Your task to perform on an android device: Clear the shopping cart on walmart.com. Add bose soundsport free to the cart on walmart.com Image 0: 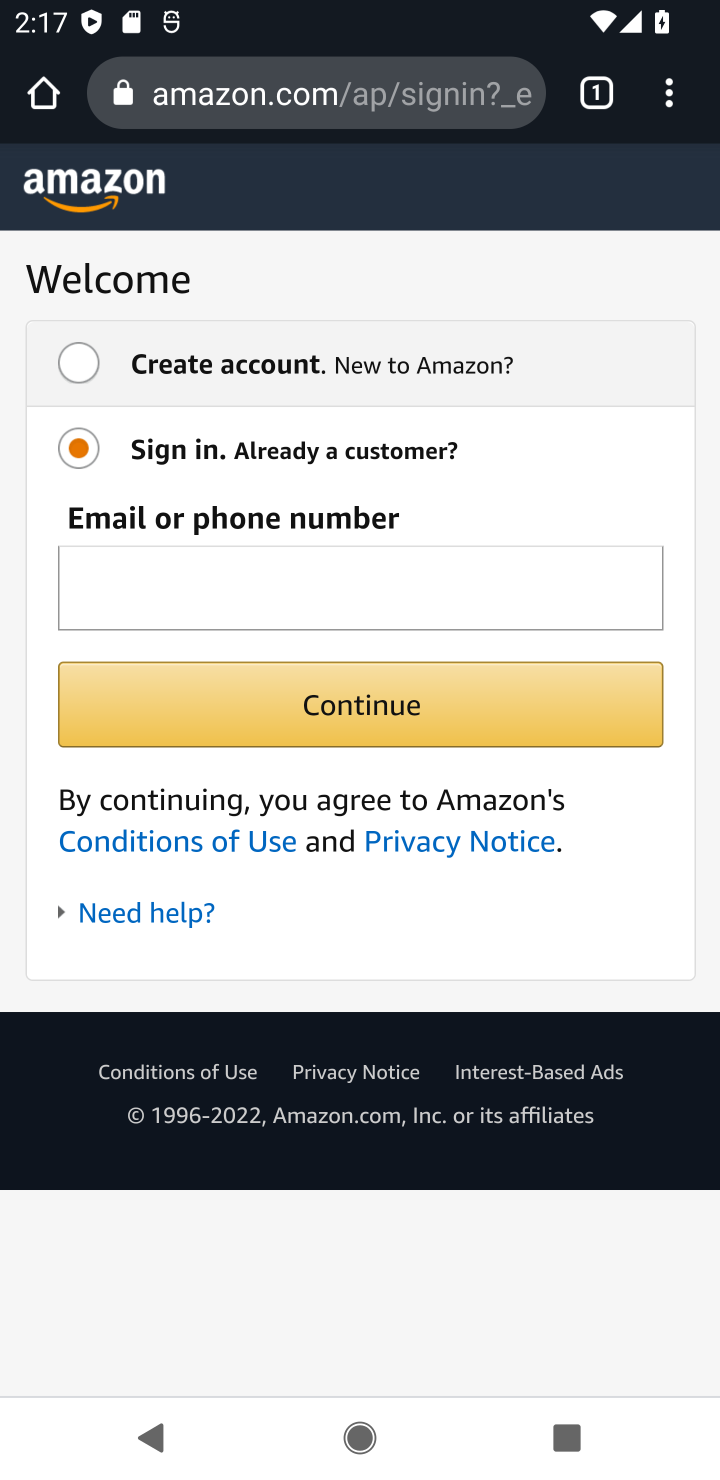
Step 0: click (657, 605)
Your task to perform on an android device: Clear the shopping cart on walmart.com. Add bose soundsport free to the cart on walmart.com Image 1: 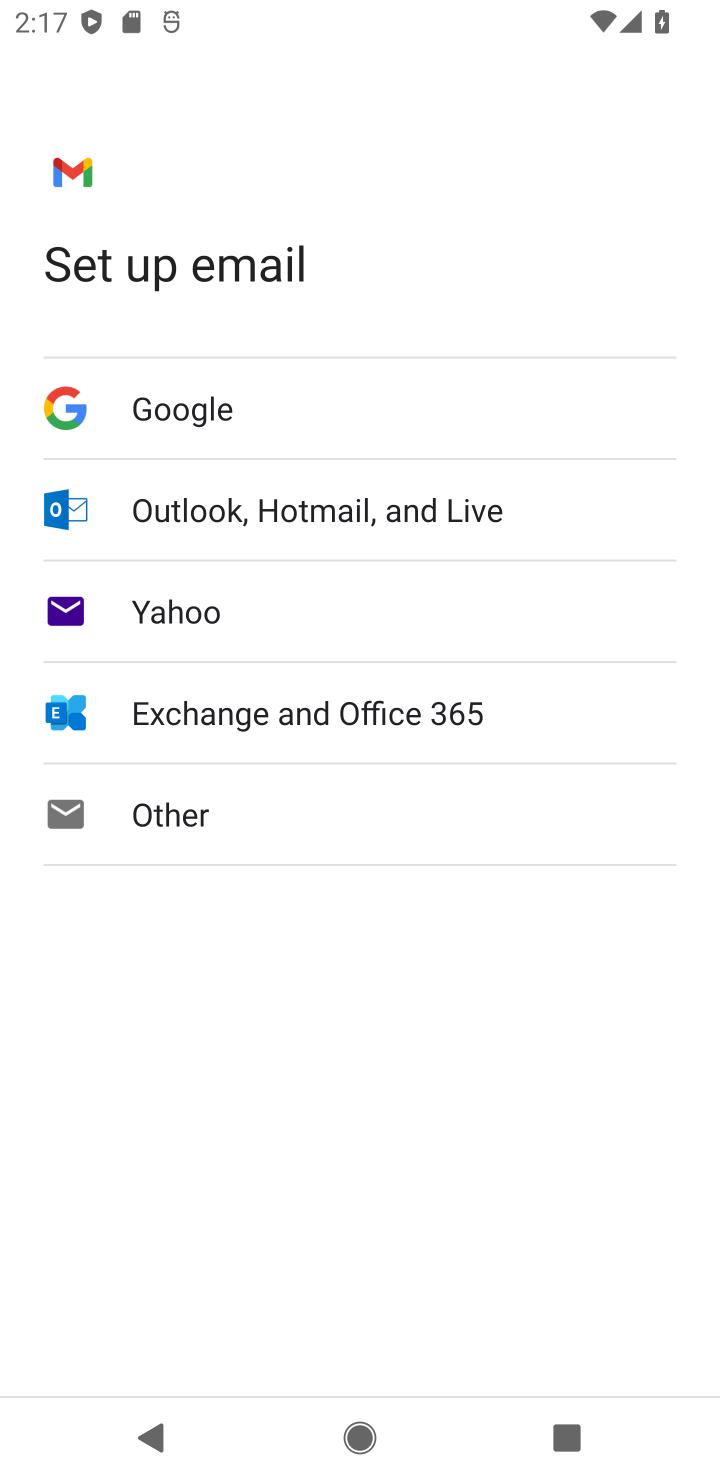
Step 1: press home button
Your task to perform on an android device: Clear the shopping cart on walmart.com. Add bose soundsport free to the cart on walmart.com Image 2: 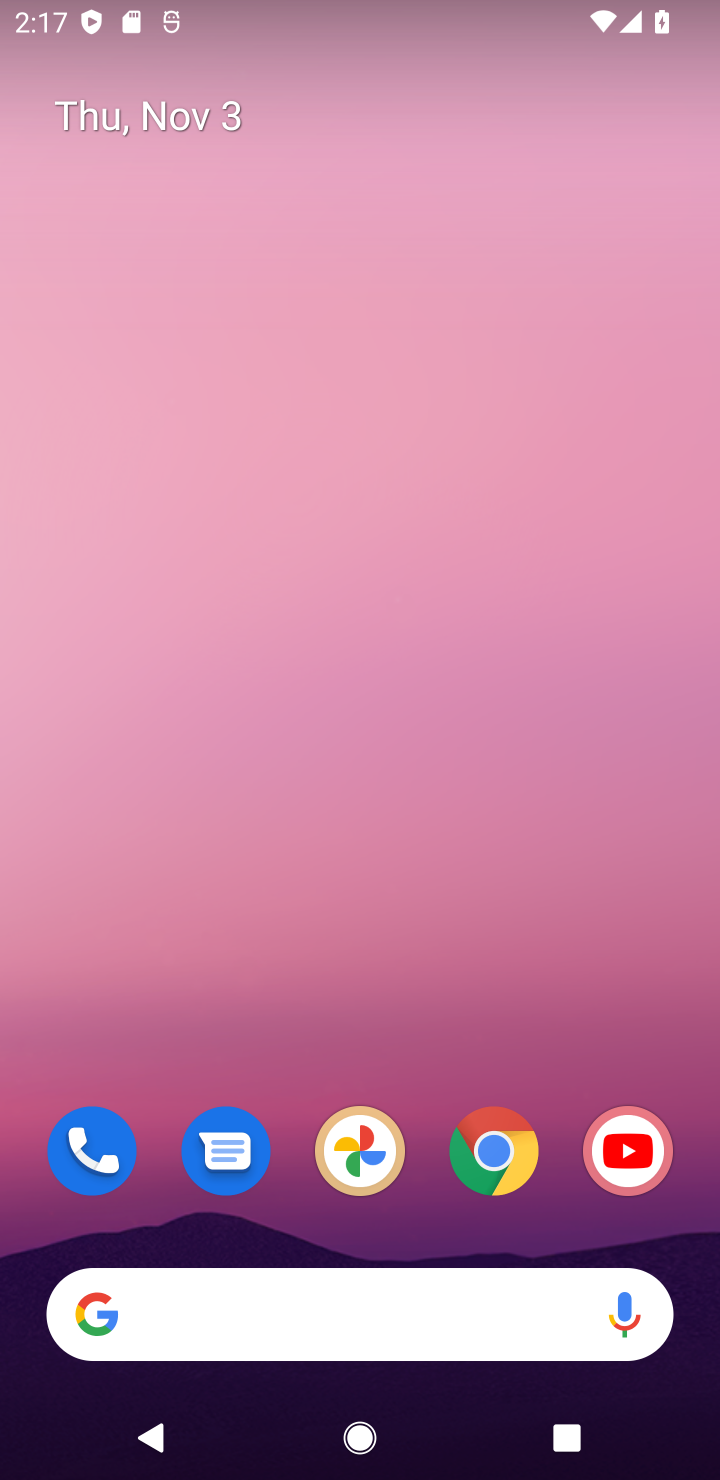
Step 2: click (496, 1149)
Your task to perform on an android device: Clear the shopping cart on walmart.com. Add bose soundsport free to the cart on walmart.com Image 3: 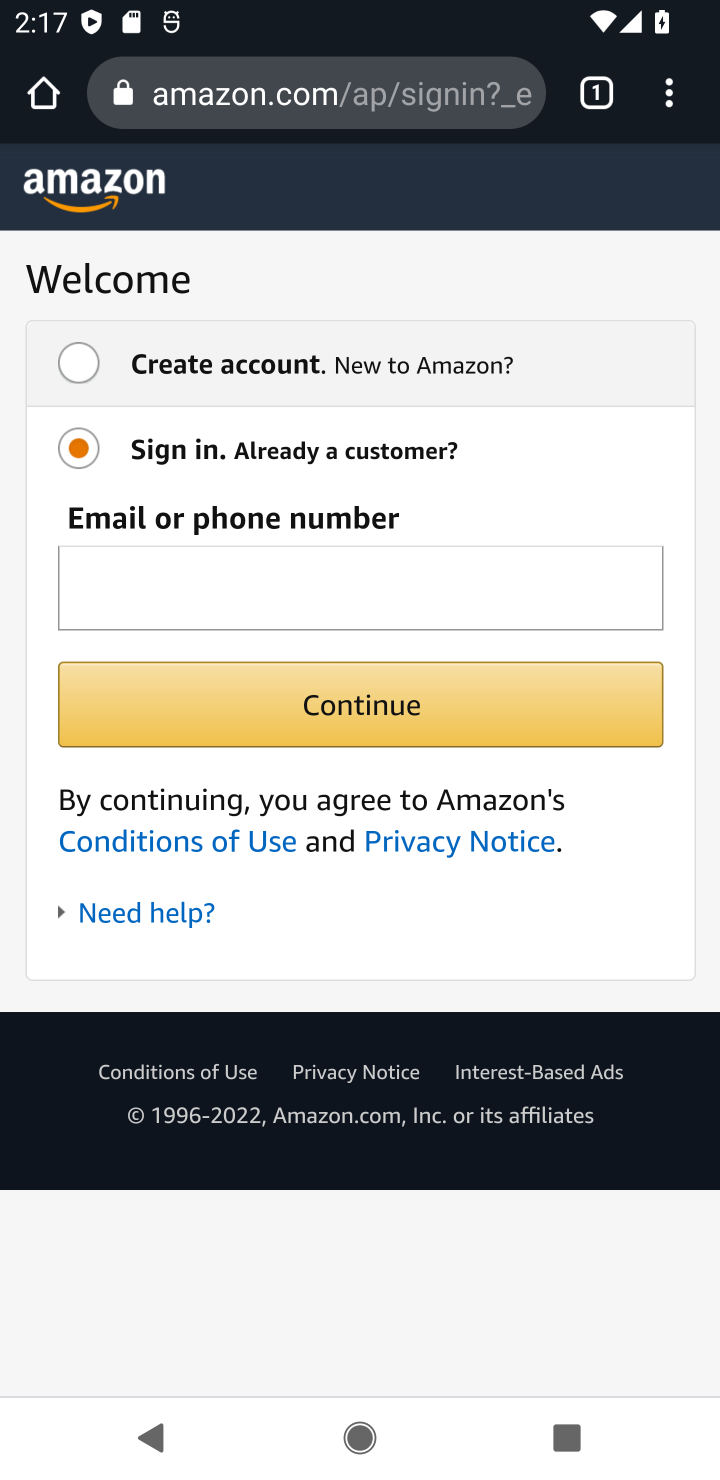
Step 3: click (375, 94)
Your task to perform on an android device: Clear the shopping cart on walmart.com. Add bose soundsport free to the cart on walmart.com Image 4: 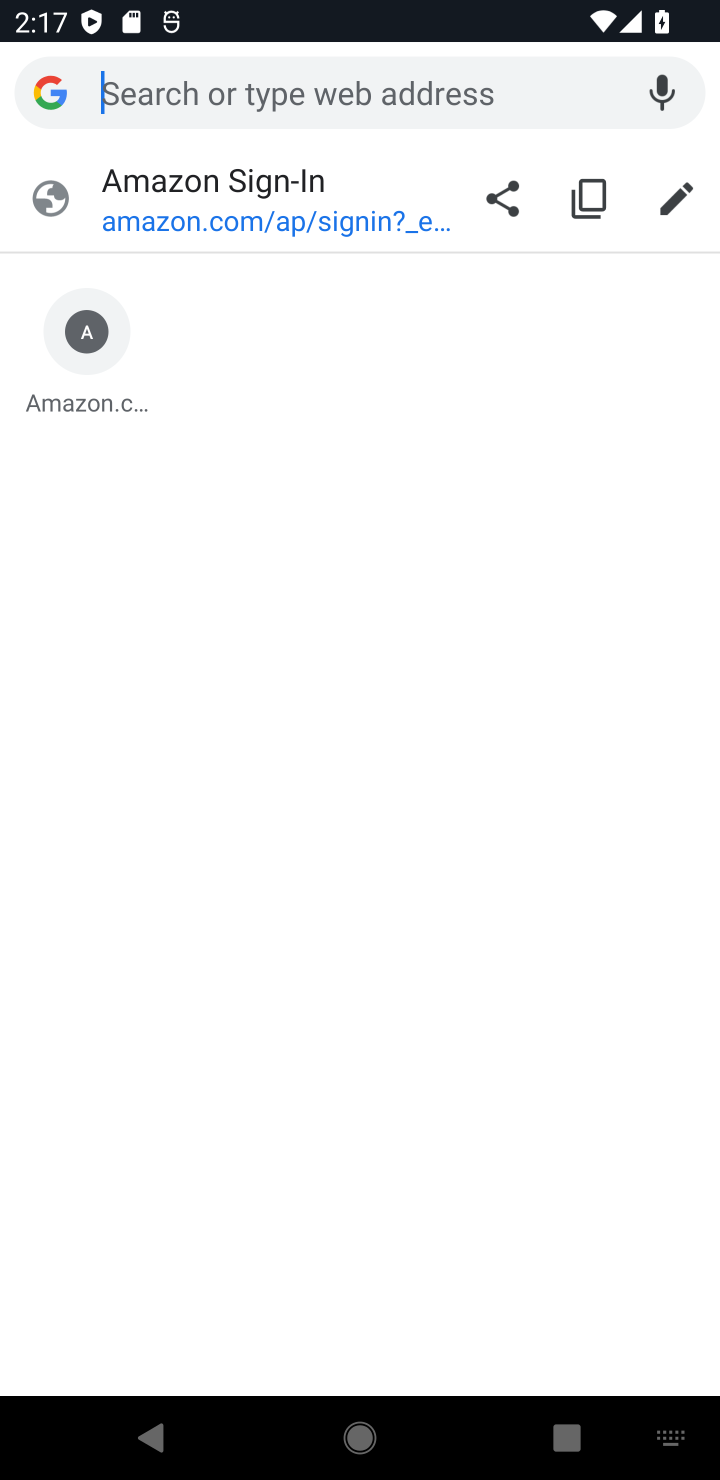
Step 4: type "walmart.com"
Your task to perform on an android device: Clear the shopping cart on walmart.com. Add bose soundsport free to the cart on walmart.com Image 5: 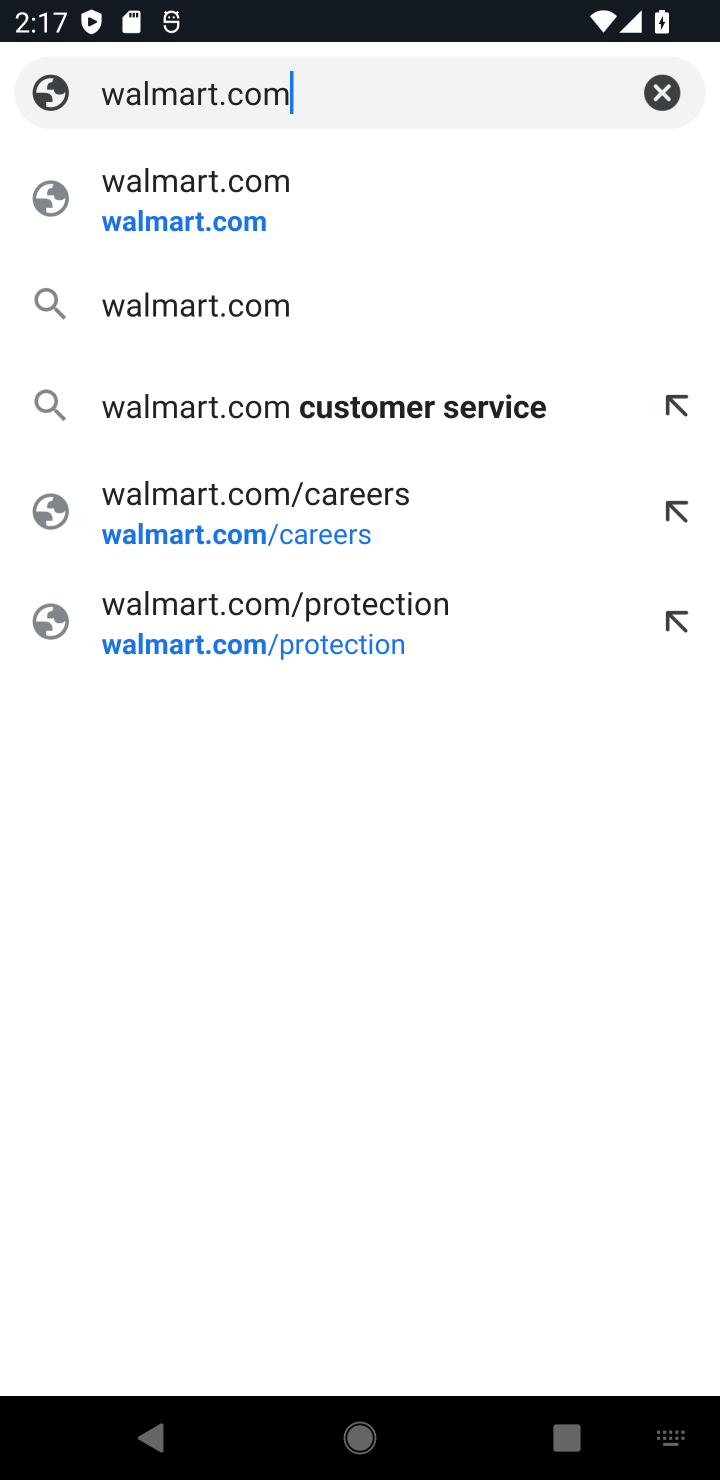
Step 5: click (146, 233)
Your task to perform on an android device: Clear the shopping cart on walmart.com. Add bose soundsport free to the cart on walmart.com Image 6: 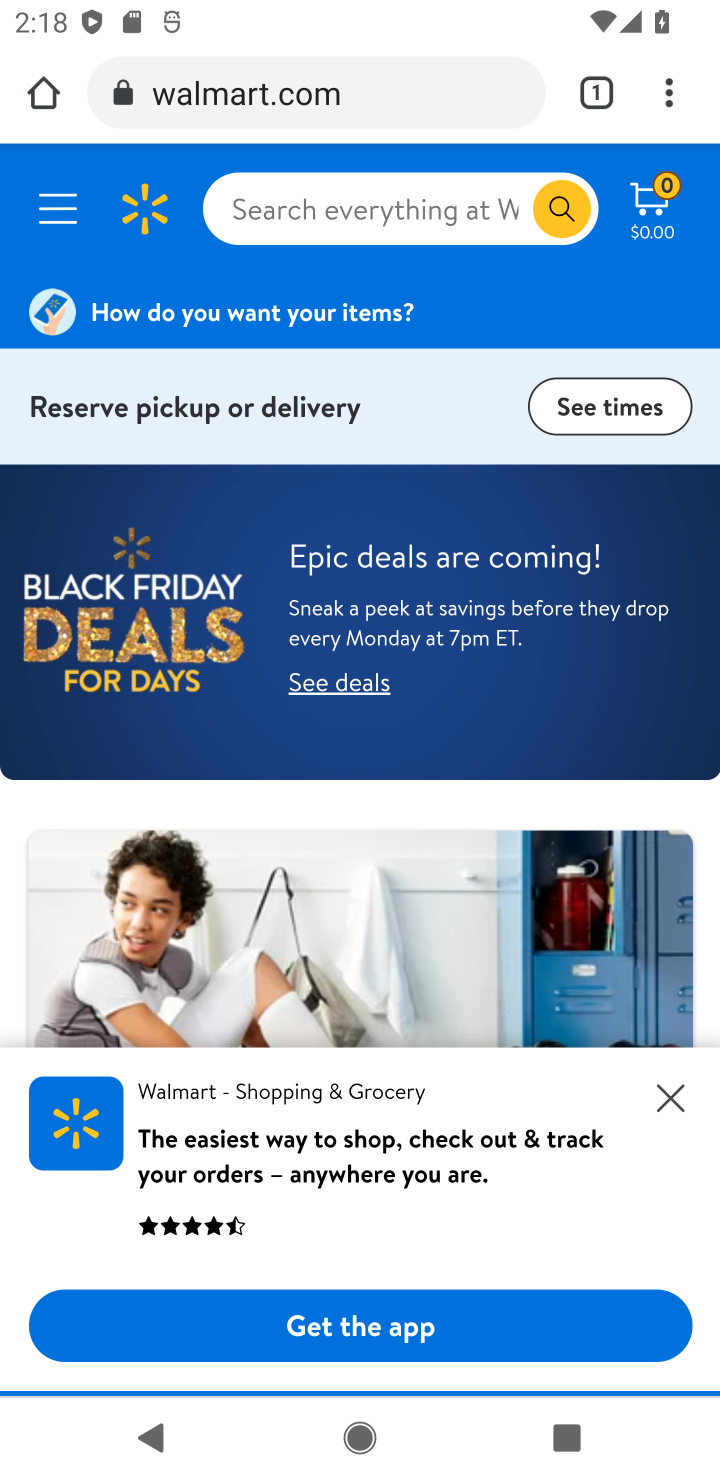
Step 6: click (650, 207)
Your task to perform on an android device: Clear the shopping cart on walmart.com. Add bose soundsport free to the cart on walmart.com Image 7: 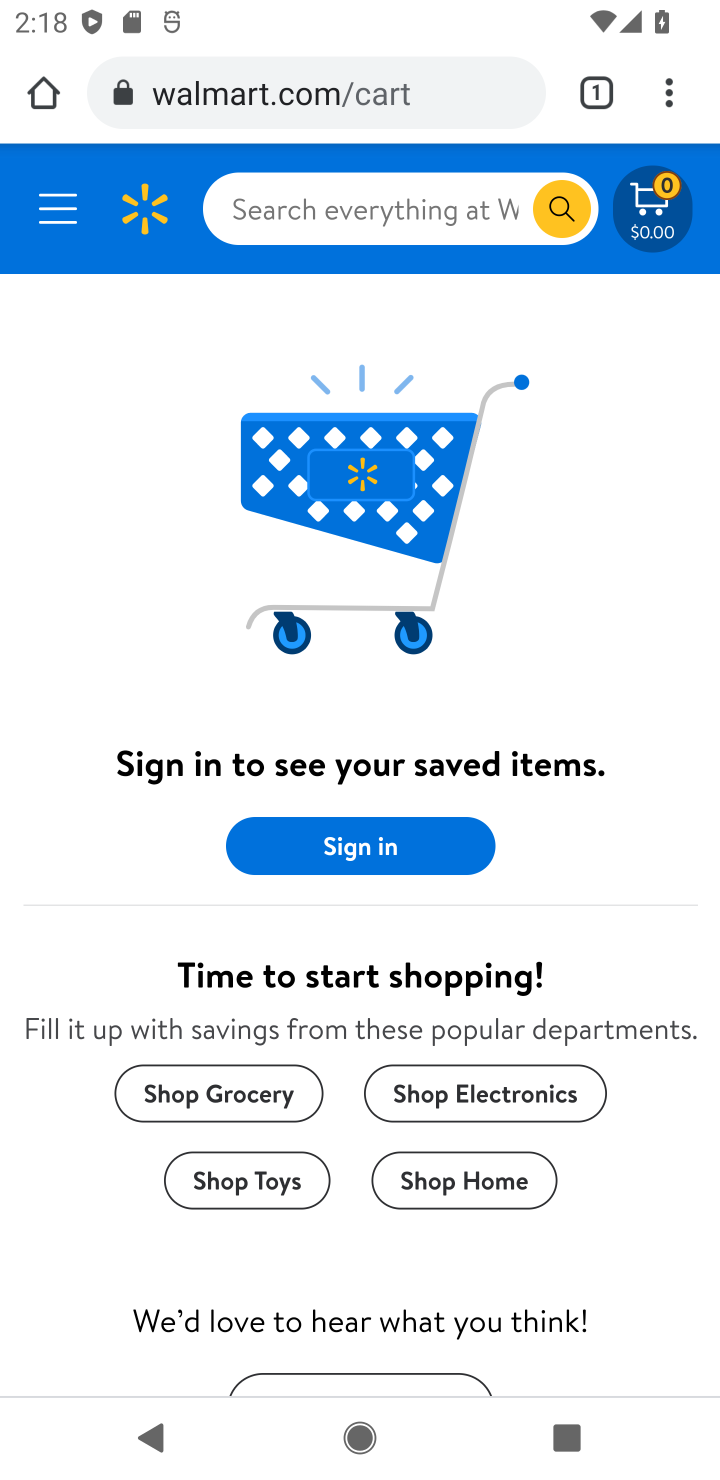
Step 7: click (329, 212)
Your task to perform on an android device: Clear the shopping cart on walmart.com. Add bose soundsport free to the cart on walmart.com Image 8: 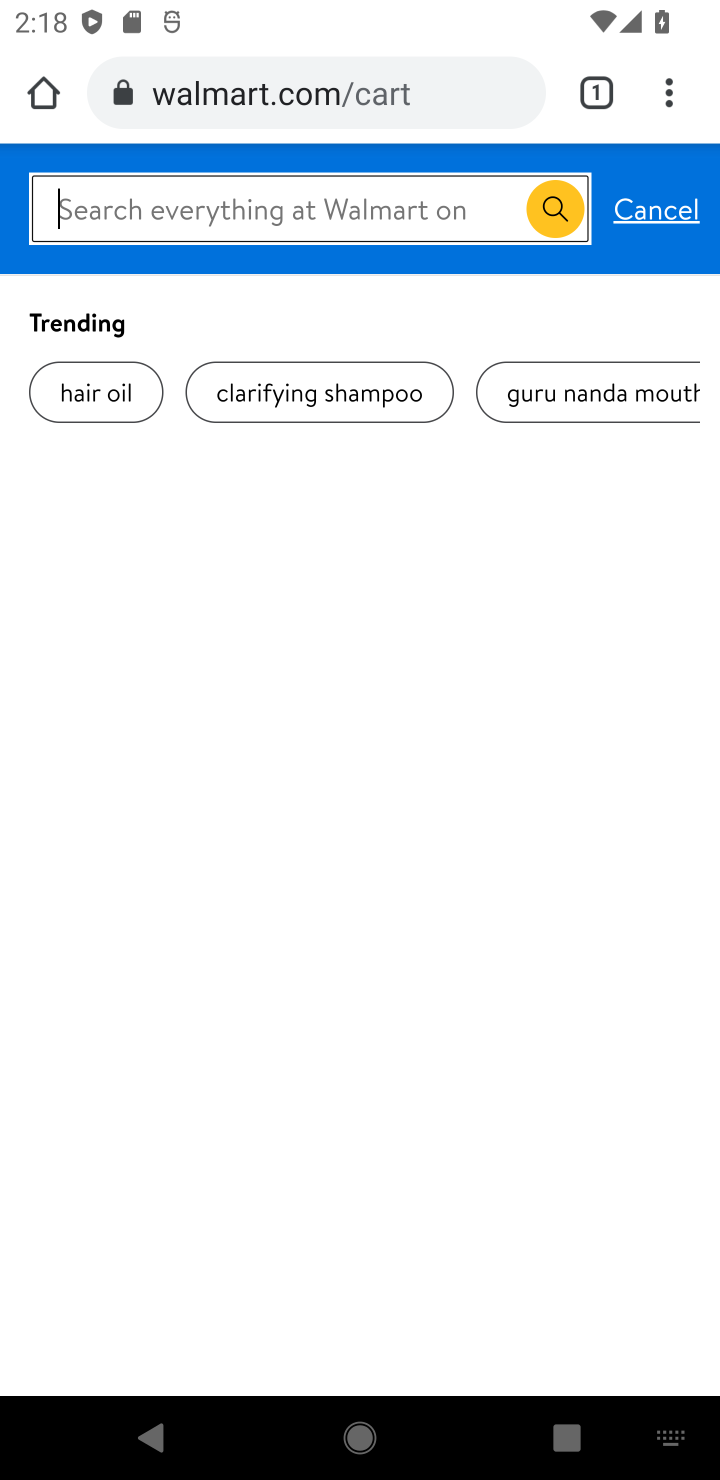
Step 8: type "Bose soundsport free"
Your task to perform on an android device: Clear the shopping cart on walmart.com. Add bose soundsport free to the cart on walmart.com Image 9: 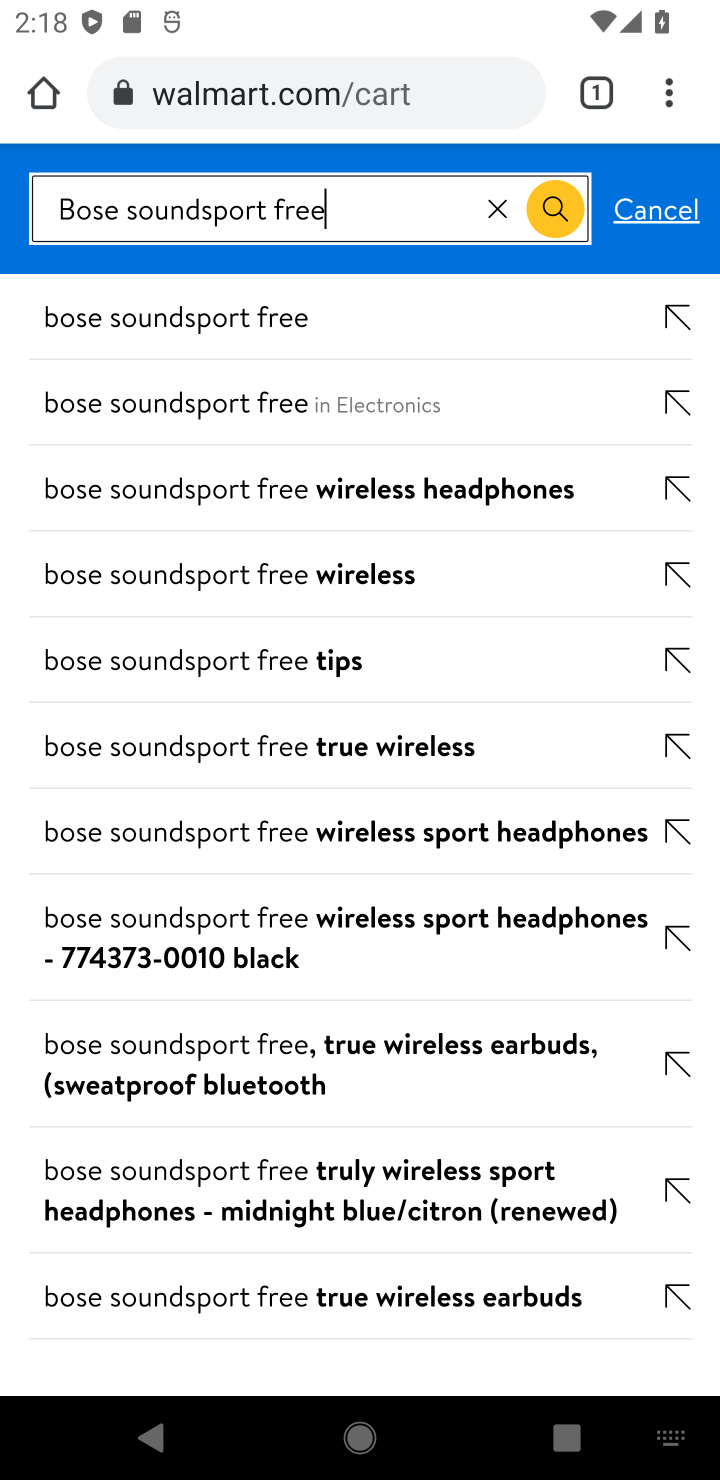
Step 9: click (291, 317)
Your task to perform on an android device: Clear the shopping cart on walmart.com. Add bose soundsport free to the cart on walmart.com Image 10: 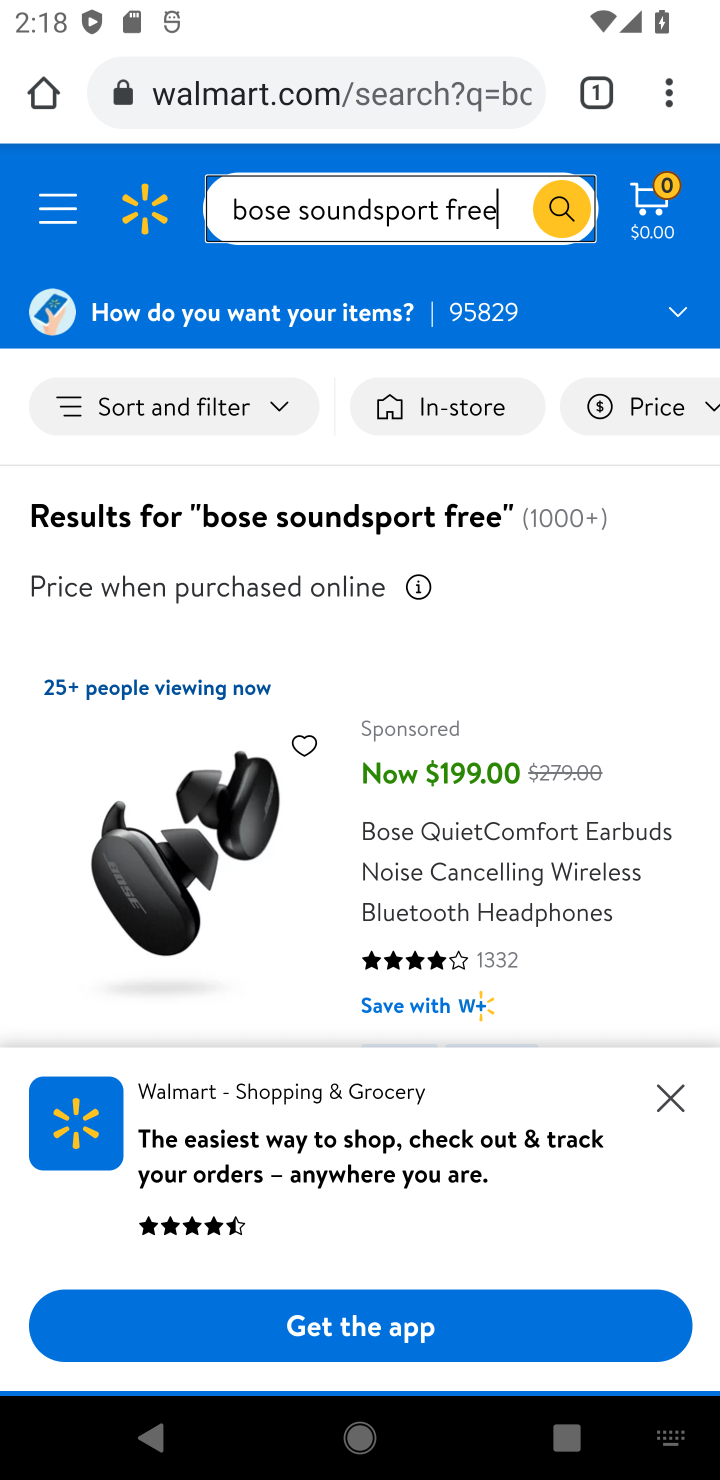
Step 10: click (670, 1098)
Your task to perform on an android device: Clear the shopping cart on walmart.com. Add bose soundsport free to the cart on walmart.com Image 11: 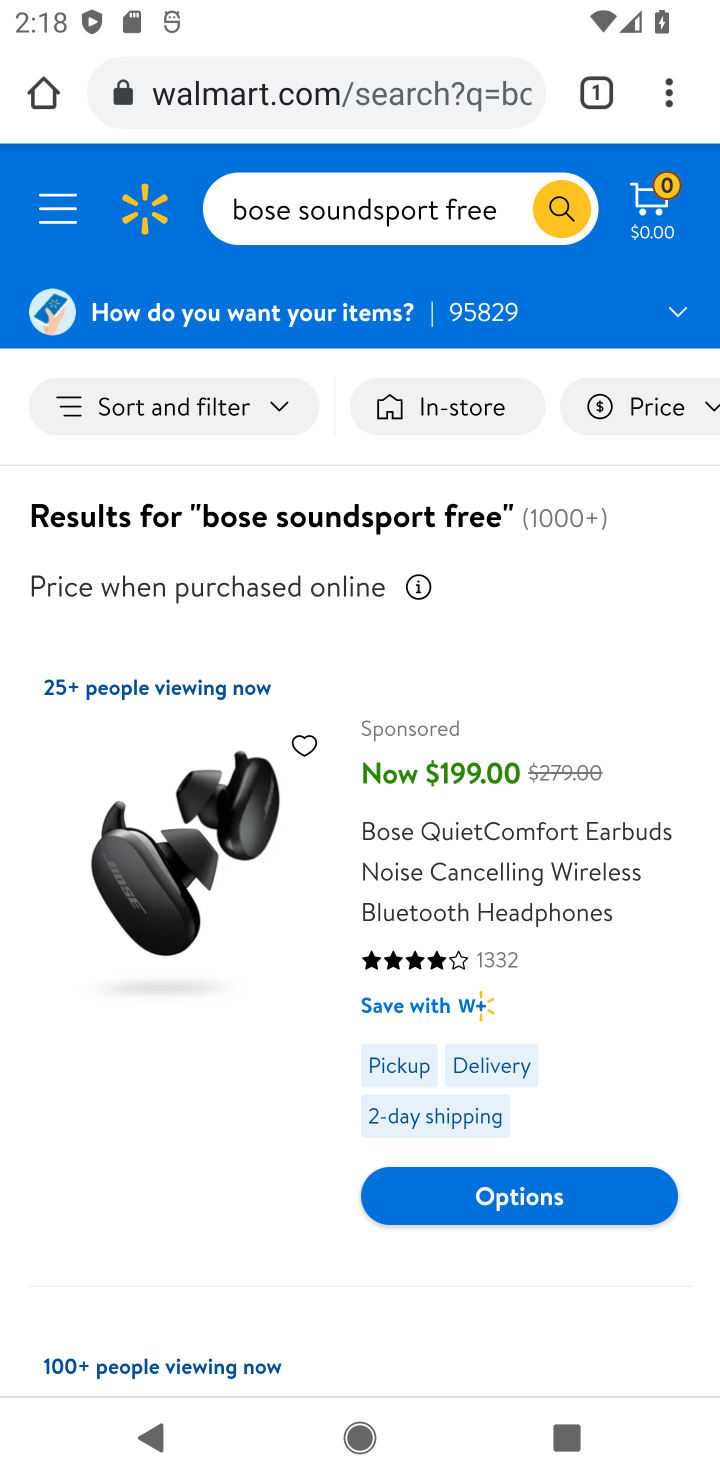
Step 11: click (525, 1171)
Your task to perform on an android device: Clear the shopping cart on walmart.com. Add bose soundsport free to the cart on walmart.com Image 12: 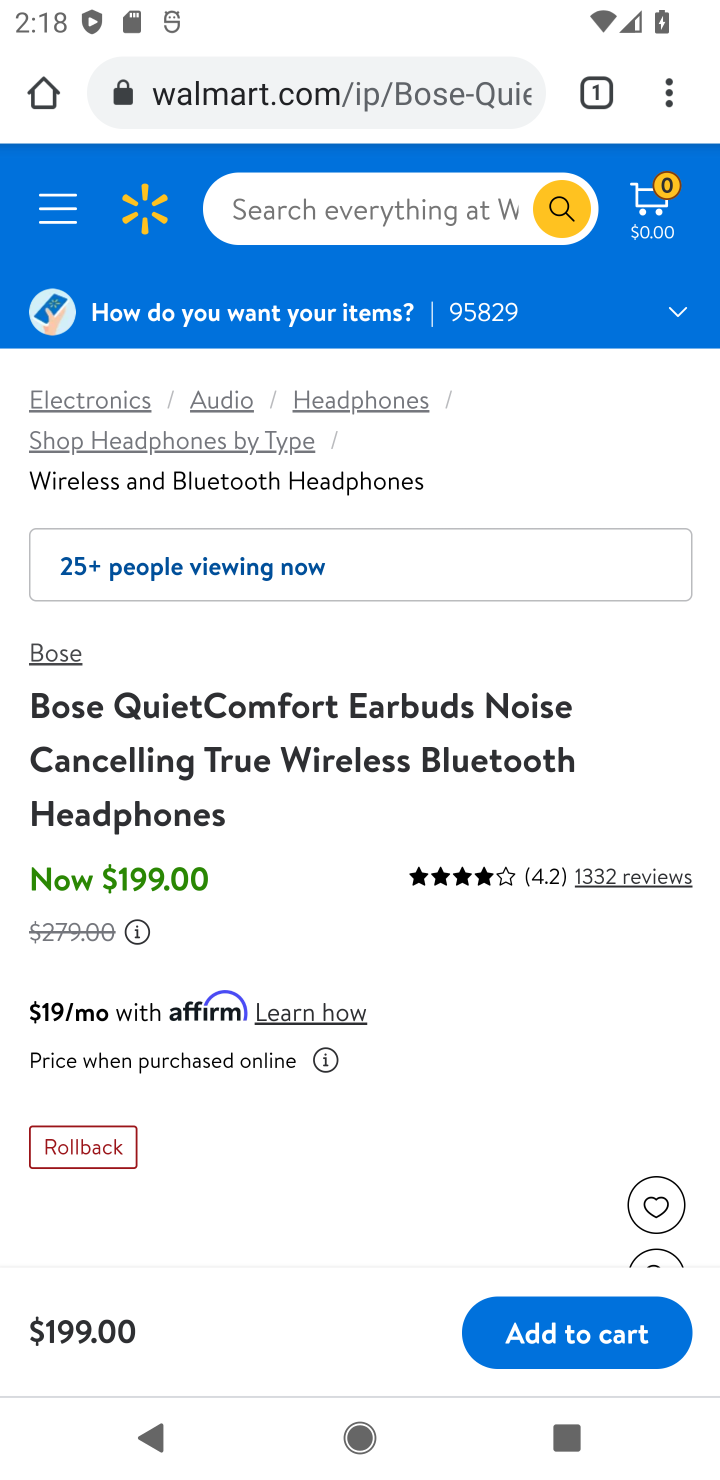
Step 12: click (546, 1330)
Your task to perform on an android device: Clear the shopping cart on walmart.com. Add bose soundsport free to the cart on walmart.com Image 13: 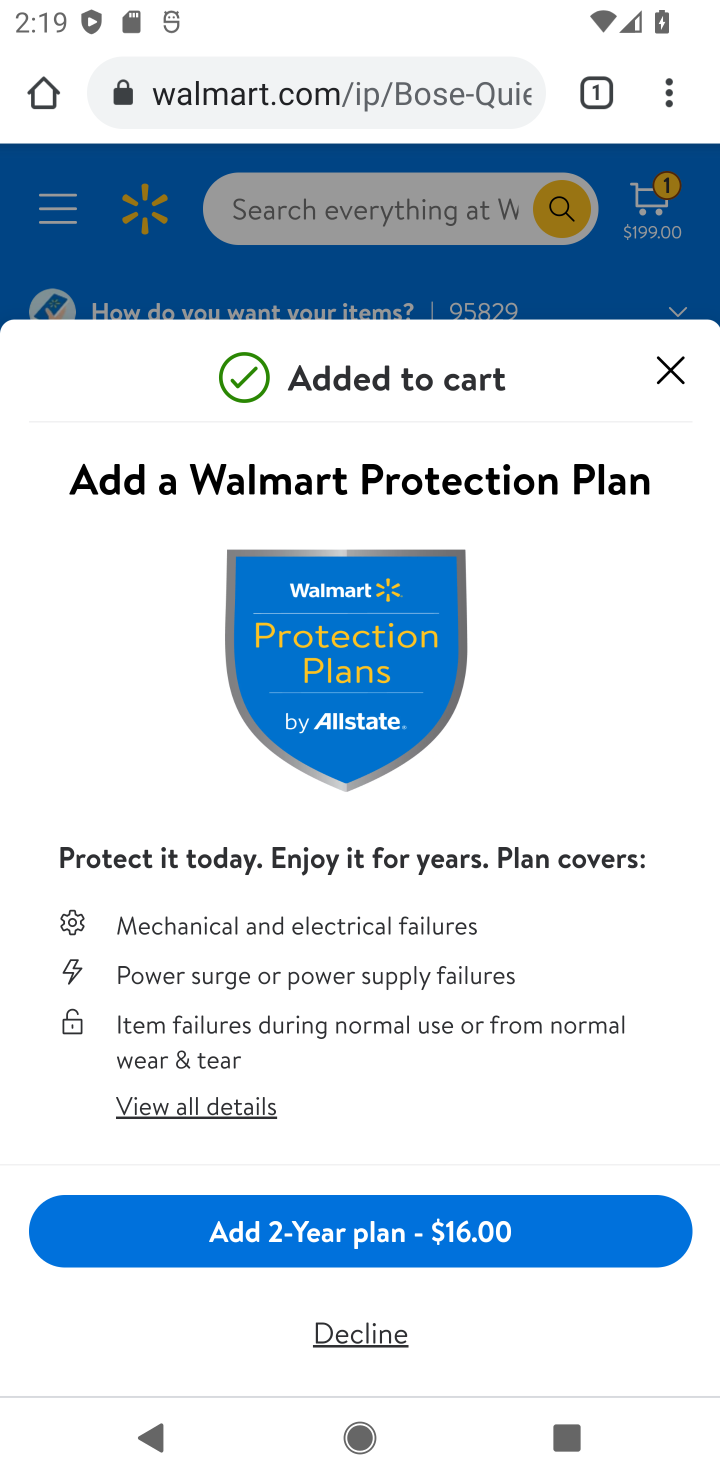
Step 13: click (357, 1341)
Your task to perform on an android device: Clear the shopping cart on walmart.com. Add bose soundsport free to the cart on walmart.com Image 14: 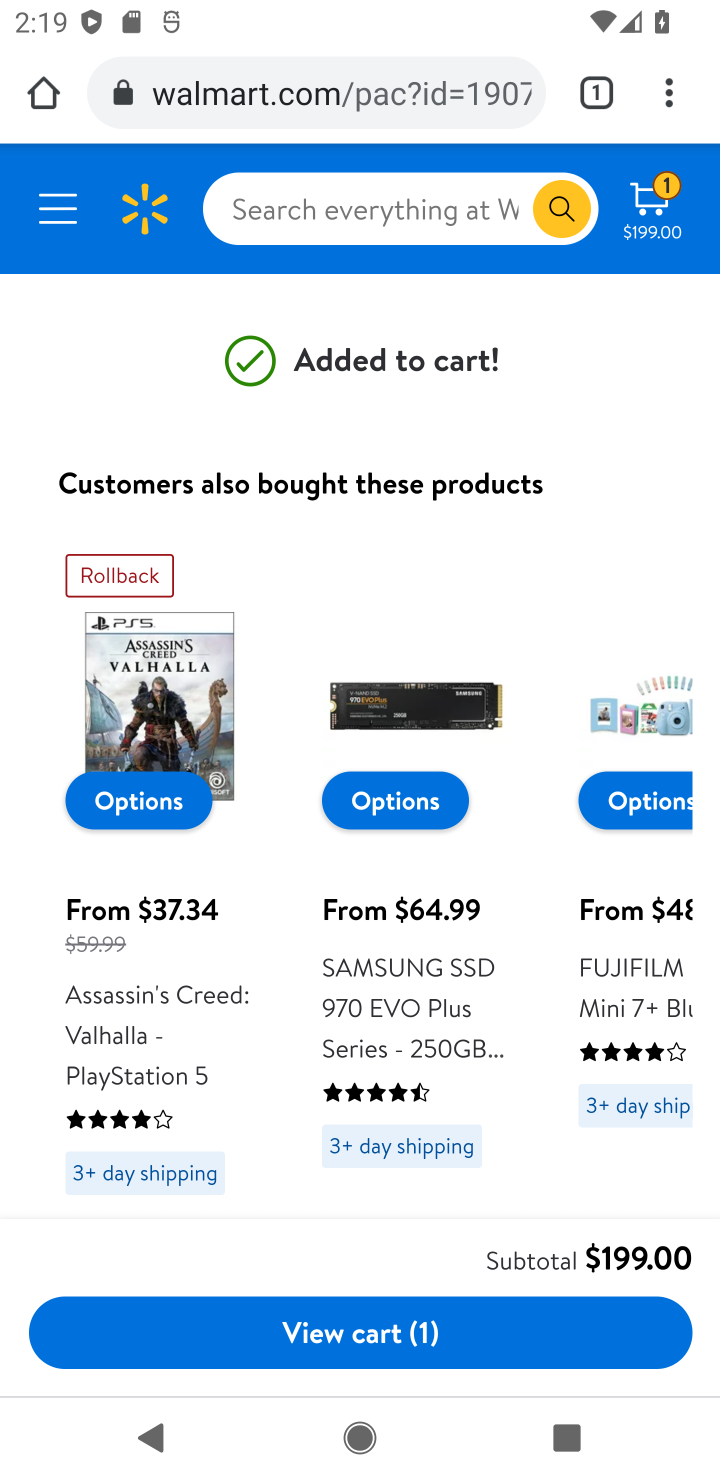
Step 14: task complete